Your task to perform on an android device: Go to network settings Image 0: 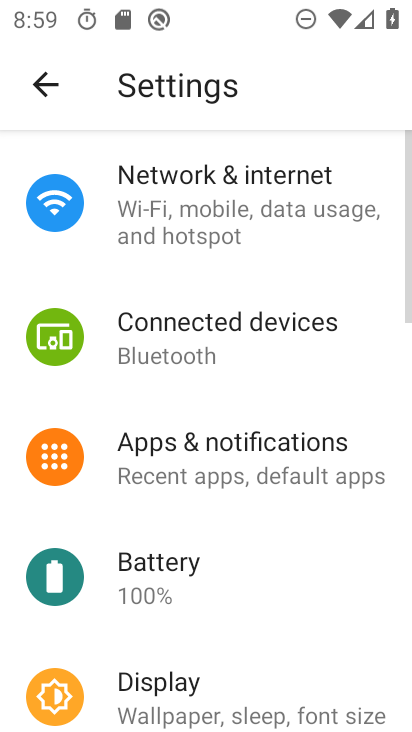
Step 0: click (201, 227)
Your task to perform on an android device: Go to network settings Image 1: 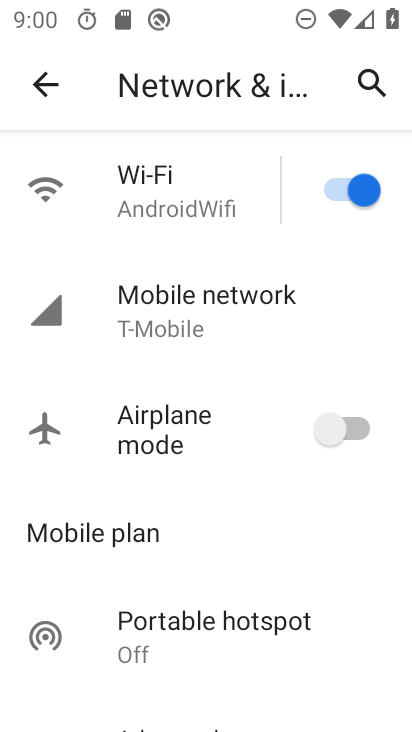
Step 1: task complete